Your task to perform on an android device: change the clock display to digital Image 0: 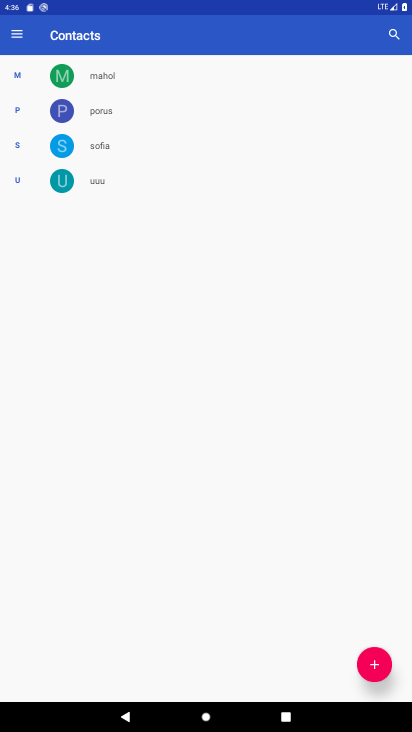
Step 0: press home button
Your task to perform on an android device: change the clock display to digital Image 1: 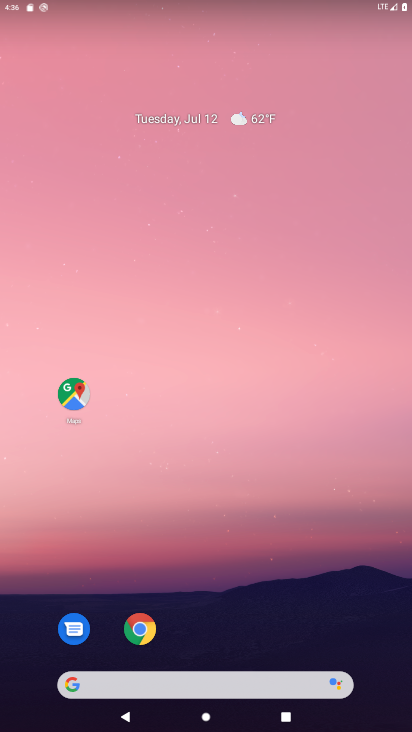
Step 1: drag from (323, 634) to (242, 128)
Your task to perform on an android device: change the clock display to digital Image 2: 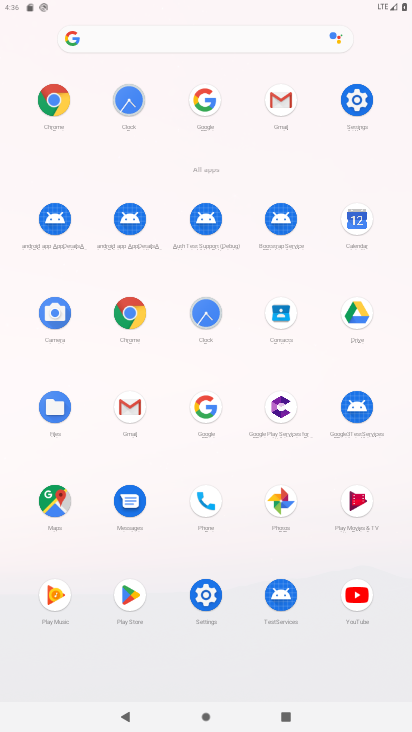
Step 2: click (199, 319)
Your task to perform on an android device: change the clock display to digital Image 3: 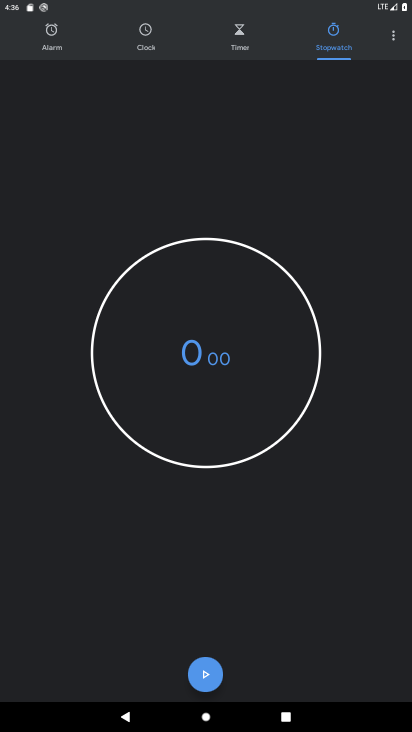
Step 3: click (394, 53)
Your task to perform on an android device: change the clock display to digital Image 4: 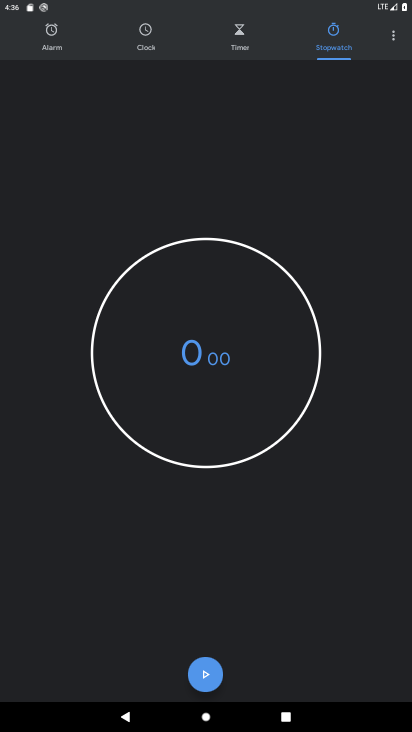
Step 4: click (390, 37)
Your task to perform on an android device: change the clock display to digital Image 5: 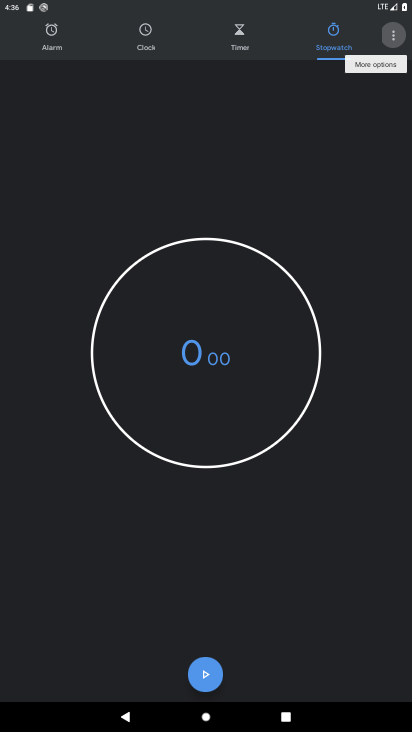
Step 5: click (388, 36)
Your task to perform on an android device: change the clock display to digital Image 6: 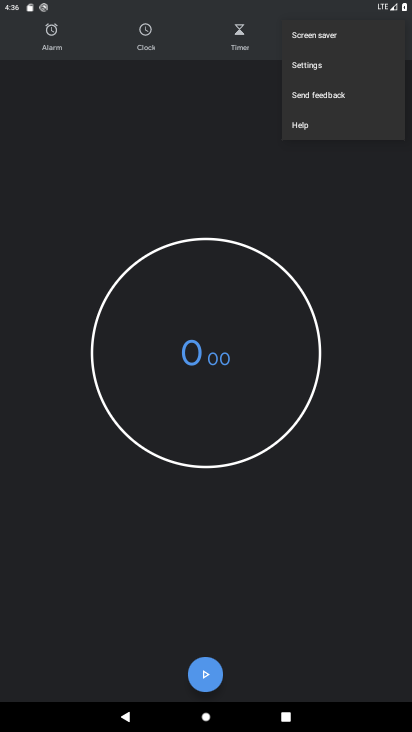
Step 6: click (289, 66)
Your task to perform on an android device: change the clock display to digital Image 7: 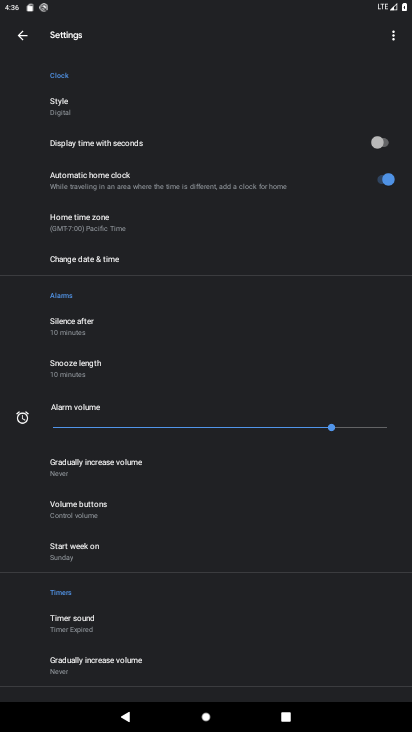
Step 7: click (64, 112)
Your task to perform on an android device: change the clock display to digital Image 8: 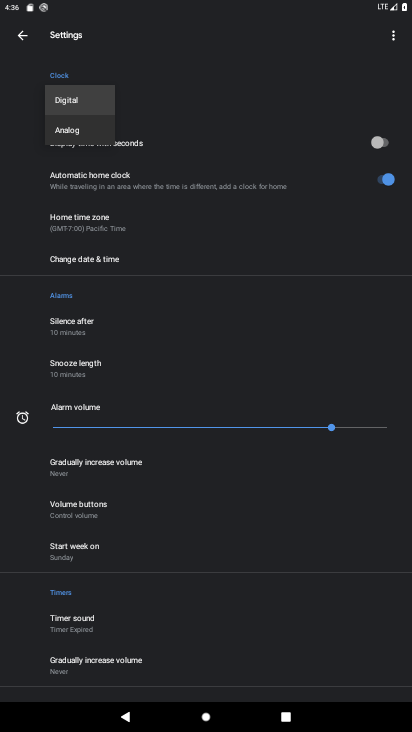
Step 8: click (72, 100)
Your task to perform on an android device: change the clock display to digital Image 9: 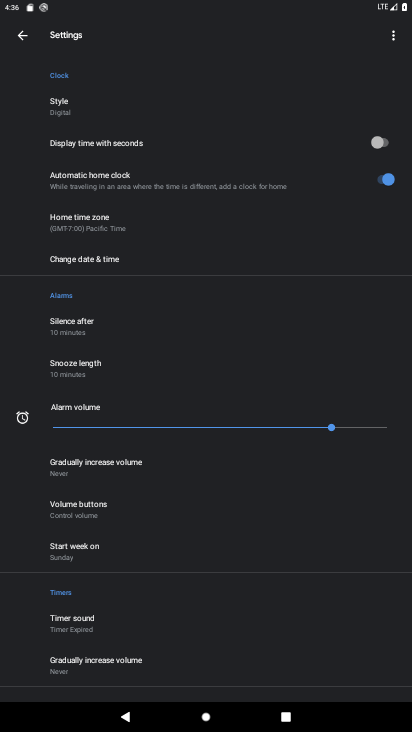
Step 9: task complete